Your task to perform on an android device: What is the news today? Image 0: 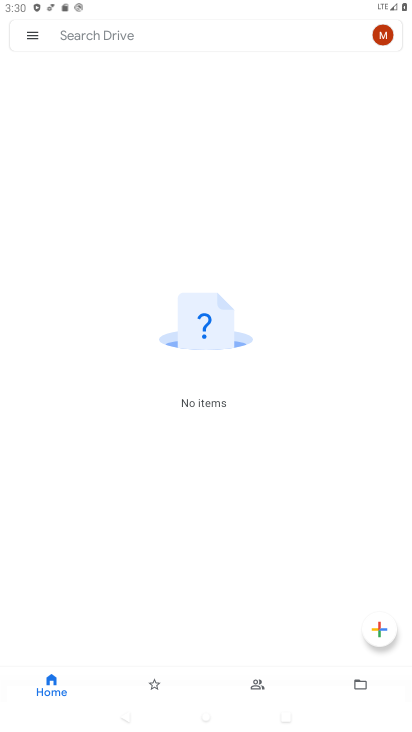
Step 0: press home button
Your task to perform on an android device: What is the news today? Image 1: 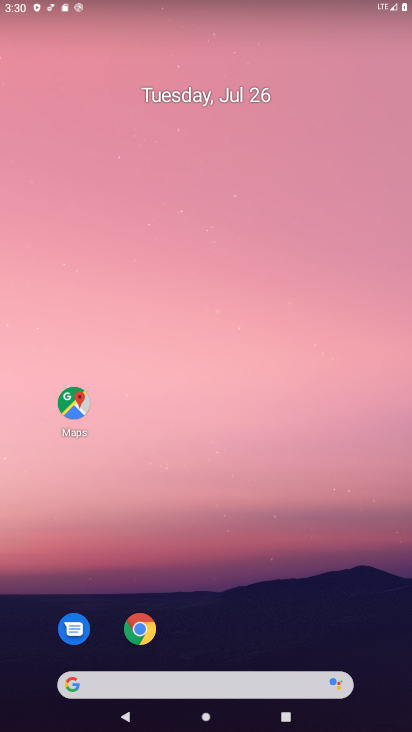
Step 1: task complete